Your task to perform on an android device: open app "Pinterest" (install if not already installed) and enter user name: "Switzerland@yahoo.com" and password: "arithmetics" Image 0: 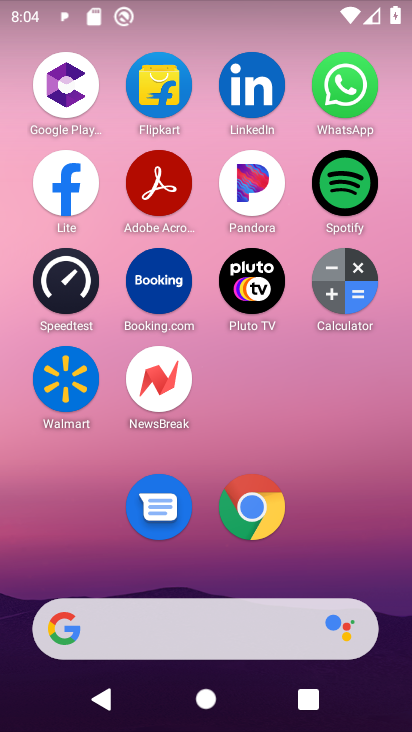
Step 0: press home button
Your task to perform on an android device: open app "Pinterest" (install if not already installed) and enter user name: "Switzerland@yahoo.com" and password: "arithmetics" Image 1: 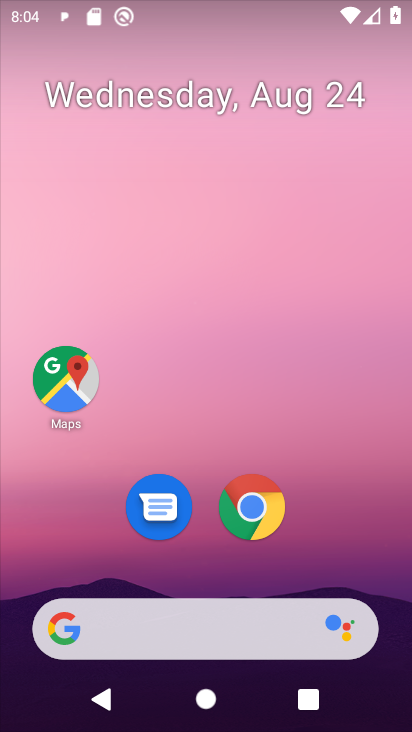
Step 1: drag from (360, 565) to (369, 66)
Your task to perform on an android device: open app "Pinterest" (install if not already installed) and enter user name: "Switzerland@yahoo.com" and password: "arithmetics" Image 2: 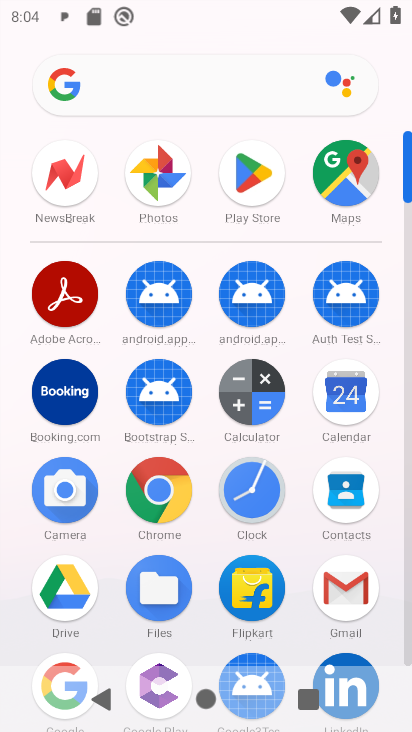
Step 2: click (256, 170)
Your task to perform on an android device: open app "Pinterest" (install if not already installed) and enter user name: "Switzerland@yahoo.com" and password: "arithmetics" Image 3: 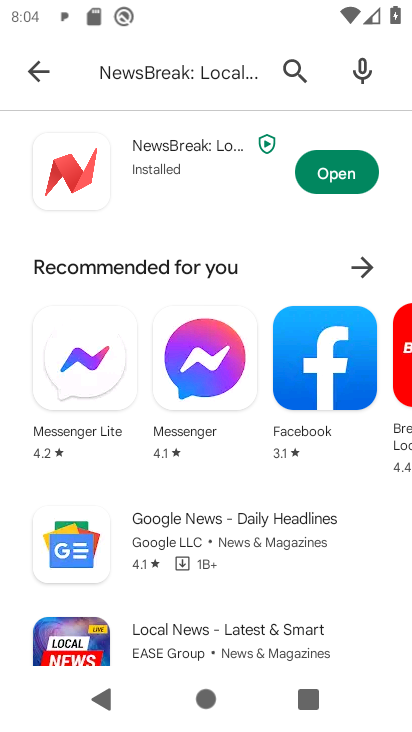
Step 3: press back button
Your task to perform on an android device: open app "Pinterest" (install if not already installed) and enter user name: "Switzerland@yahoo.com" and password: "arithmetics" Image 4: 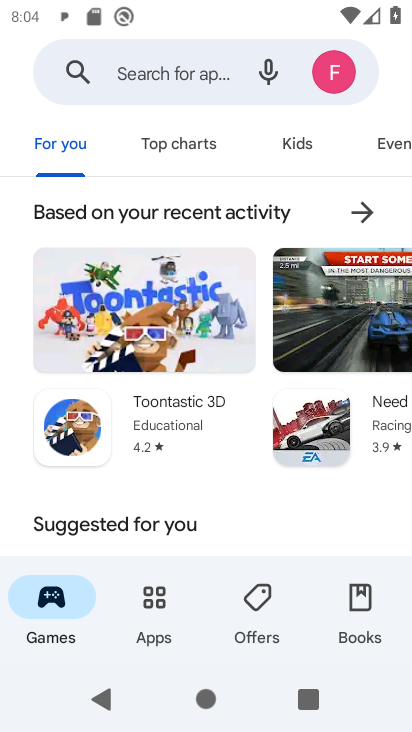
Step 4: click (158, 69)
Your task to perform on an android device: open app "Pinterest" (install if not already installed) and enter user name: "Switzerland@yahoo.com" and password: "arithmetics" Image 5: 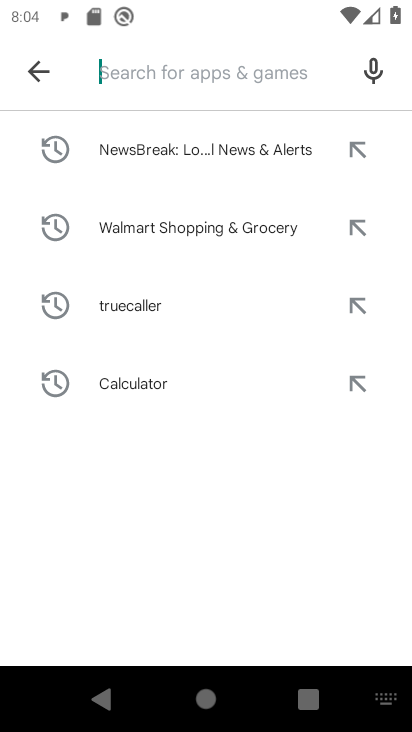
Step 5: type "Pinterest"
Your task to perform on an android device: open app "Pinterest" (install if not already installed) and enter user name: "Switzerland@yahoo.com" and password: "arithmetics" Image 6: 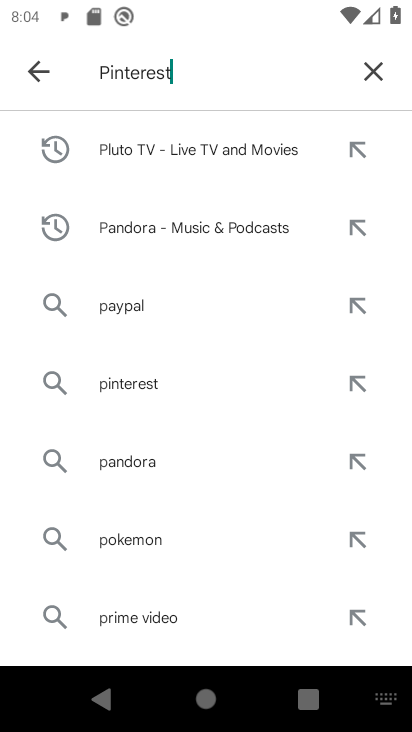
Step 6: press enter
Your task to perform on an android device: open app "Pinterest" (install if not already installed) and enter user name: "Switzerland@yahoo.com" and password: "arithmetics" Image 7: 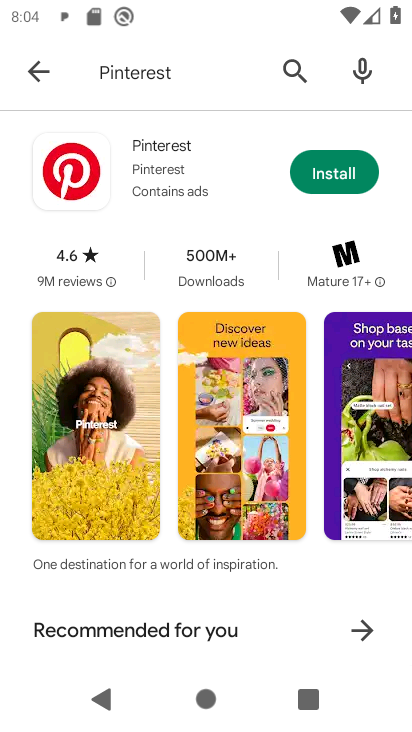
Step 7: click (318, 167)
Your task to perform on an android device: open app "Pinterest" (install if not already installed) and enter user name: "Switzerland@yahoo.com" and password: "arithmetics" Image 8: 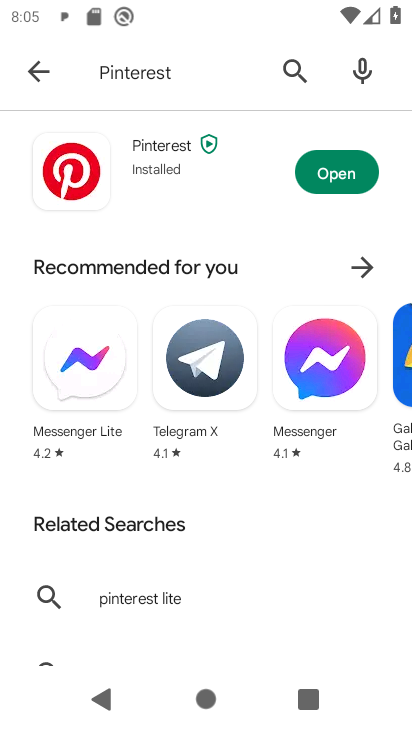
Step 8: click (344, 181)
Your task to perform on an android device: open app "Pinterest" (install if not already installed) and enter user name: "Switzerland@yahoo.com" and password: "arithmetics" Image 9: 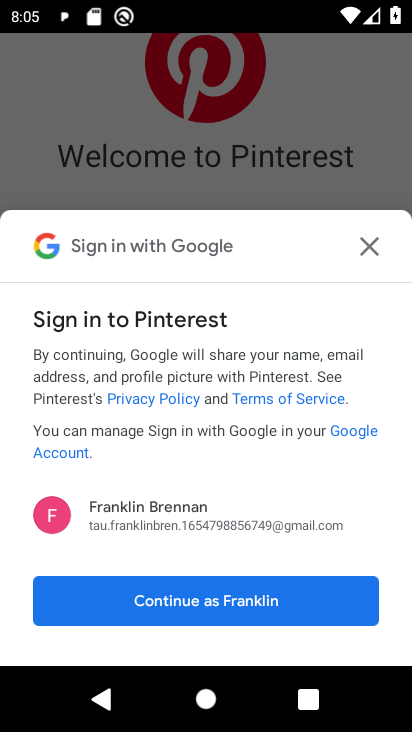
Step 9: click (375, 243)
Your task to perform on an android device: open app "Pinterest" (install if not already installed) and enter user name: "Switzerland@yahoo.com" and password: "arithmetics" Image 10: 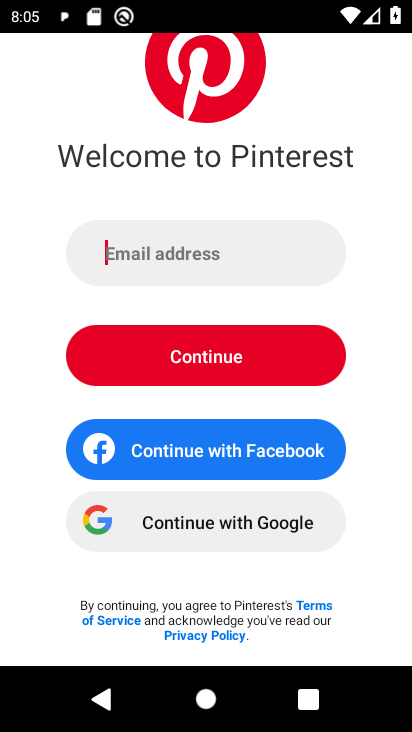
Step 10: type "Switzerland@yahoo.com"
Your task to perform on an android device: open app "Pinterest" (install if not already installed) and enter user name: "Switzerland@yahoo.com" and password: "arithmetics" Image 11: 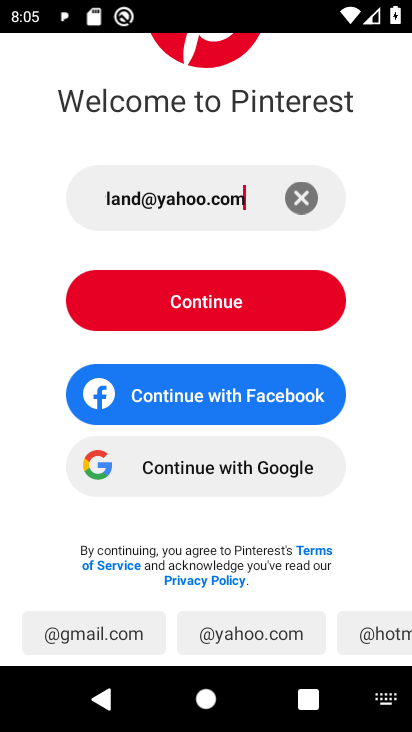
Step 11: press enter
Your task to perform on an android device: open app "Pinterest" (install if not already installed) and enter user name: "Switzerland@yahoo.com" and password: "arithmetics" Image 12: 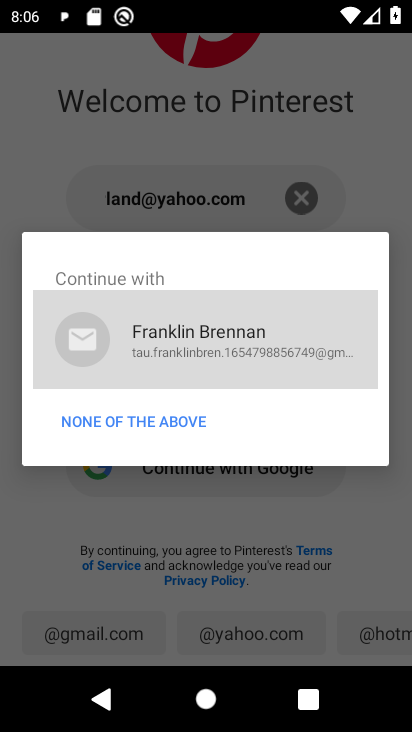
Step 12: click (135, 427)
Your task to perform on an android device: open app "Pinterest" (install if not already installed) and enter user name: "Switzerland@yahoo.com" and password: "arithmetics" Image 13: 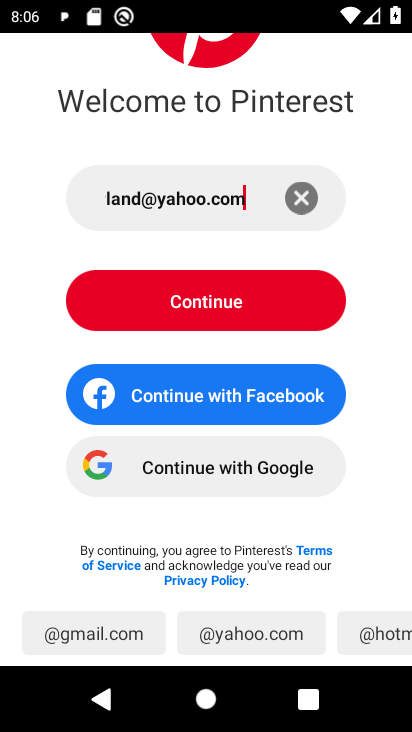
Step 13: click (296, 308)
Your task to perform on an android device: open app "Pinterest" (install if not already installed) and enter user name: "Switzerland@yahoo.com" and password: "arithmetics" Image 14: 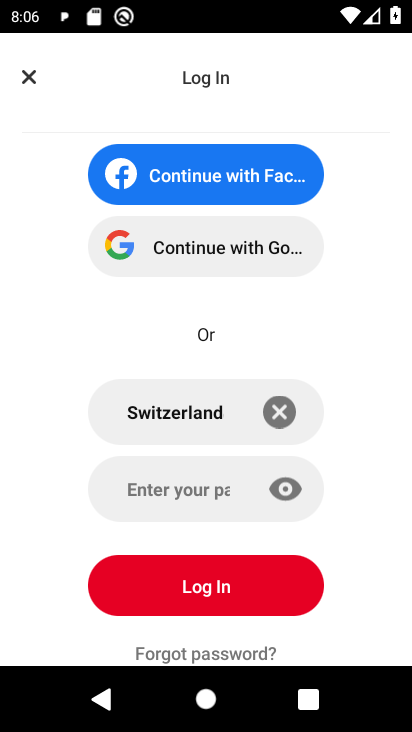
Step 14: click (159, 493)
Your task to perform on an android device: open app "Pinterest" (install if not already installed) and enter user name: "Switzerland@yahoo.com" and password: "arithmetics" Image 15: 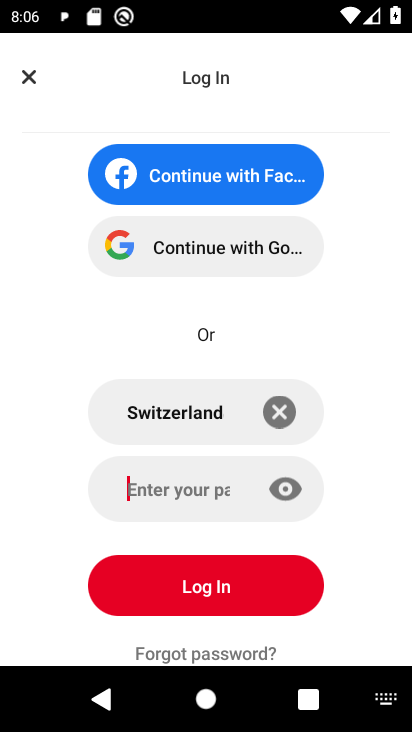
Step 15: press enter
Your task to perform on an android device: open app "Pinterest" (install if not already installed) and enter user name: "Switzerland@yahoo.com" and password: "arithmetics" Image 16: 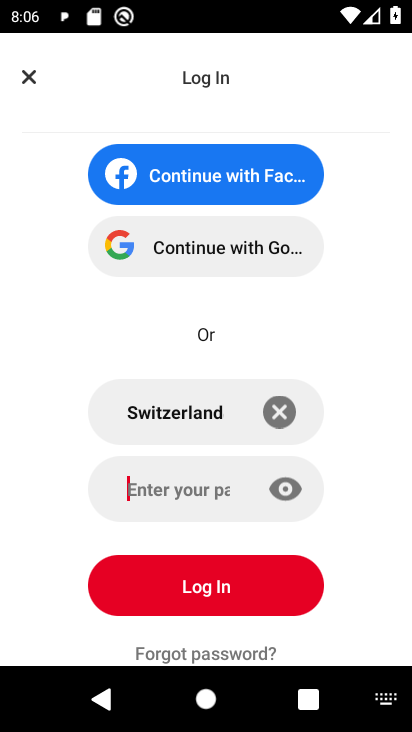
Step 16: type "arithmetics"
Your task to perform on an android device: open app "Pinterest" (install if not already installed) and enter user name: "Switzerland@yahoo.com" and password: "arithmetics" Image 17: 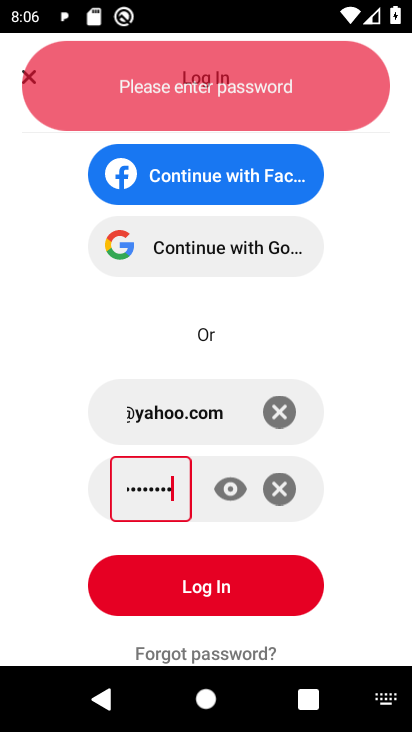
Step 17: task complete